Your task to perform on an android device: allow cookies in the chrome app Image 0: 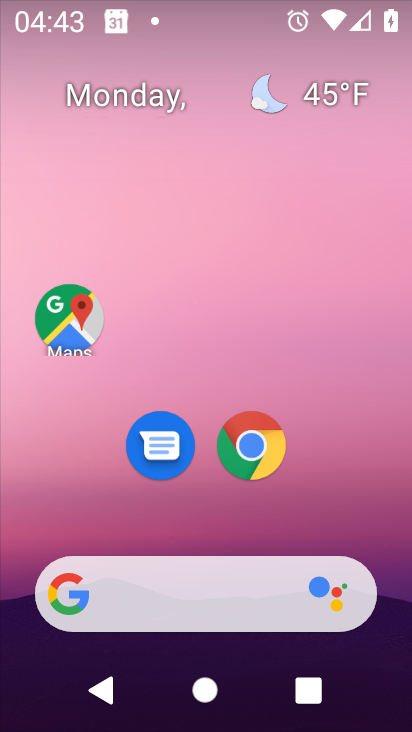
Step 0: click (261, 442)
Your task to perform on an android device: allow cookies in the chrome app Image 1: 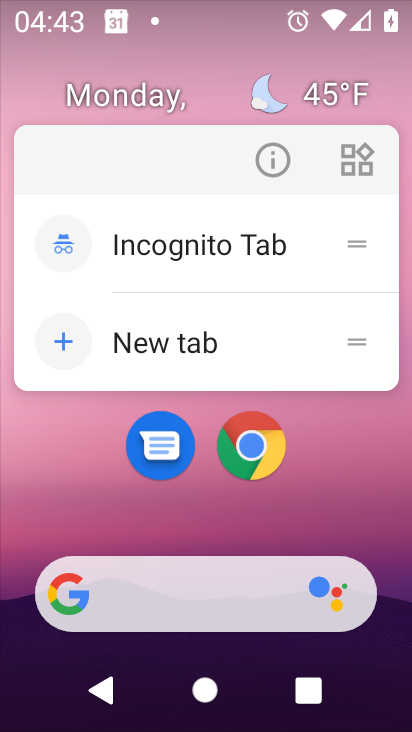
Step 1: click (261, 442)
Your task to perform on an android device: allow cookies in the chrome app Image 2: 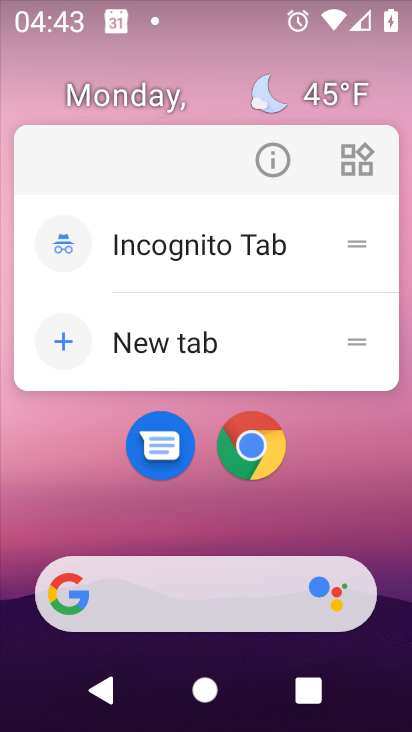
Step 2: click (238, 466)
Your task to perform on an android device: allow cookies in the chrome app Image 3: 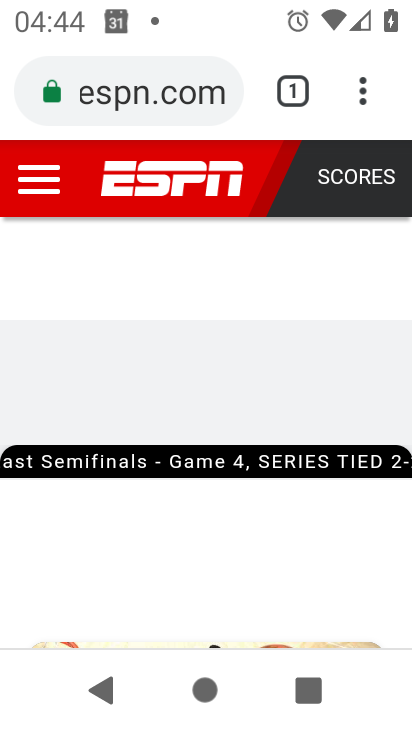
Step 3: click (361, 104)
Your task to perform on an android device: allow cookies in the chrome app Image 4: 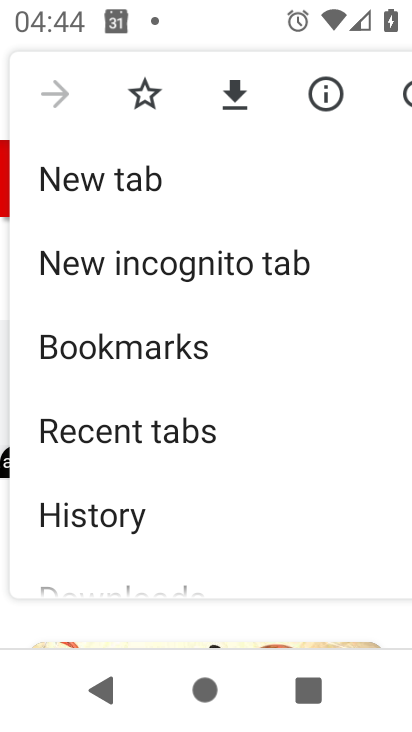
Step 4: drag from (292, 464) to (302, 24)
Your task to perform on an android device: allow cookies in the chrome app Image 5: 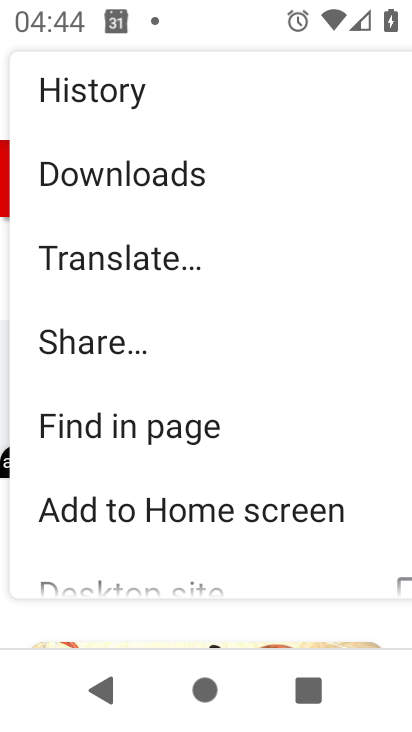
Step 5: drag from (252, 461) to (278, 50)
Your task to perform on an android device: allow cookies in the chrome app Image 6: 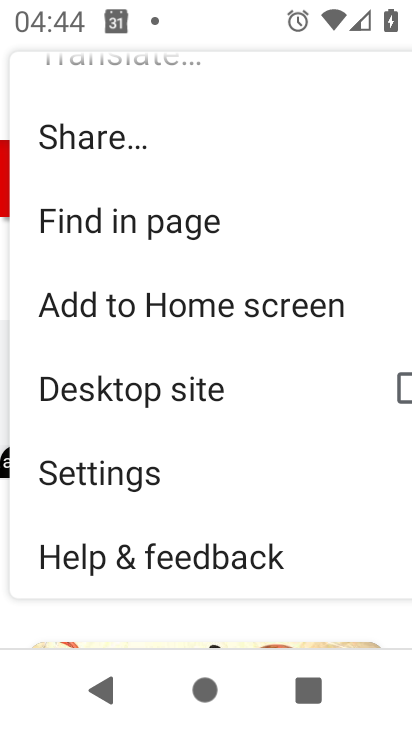
Step 6: click (154, 454)
Your task to perform on an android device: allow cookies in the chrome app Image 7: 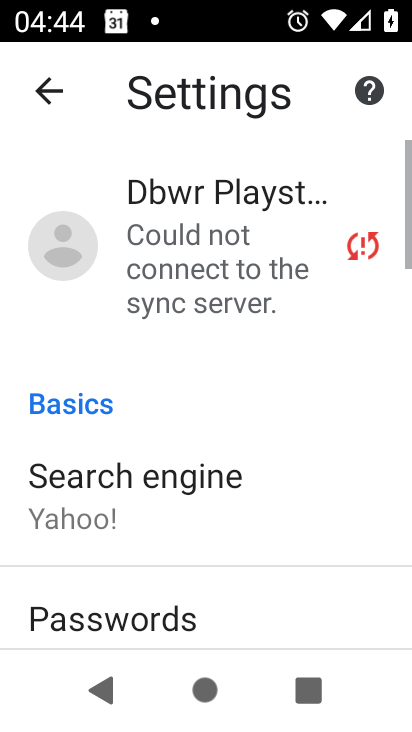
Step 7: drag from (161, 541) to (166, 234)
Your task to perform on an android device: allow cookies in the chrome app Image 8: 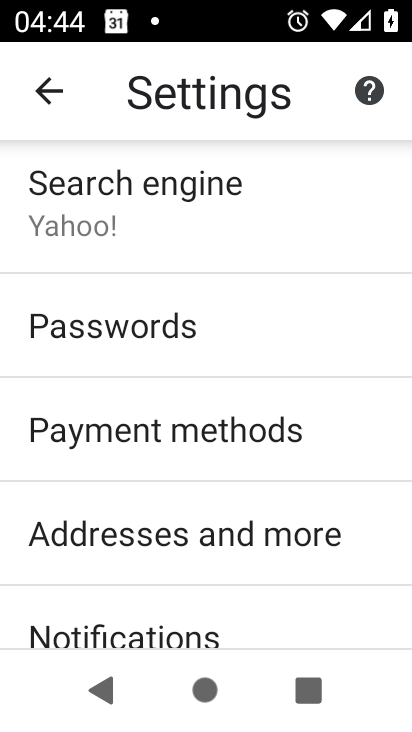
Step 8: drag from (179, 613) to (199, 205)
Your task to perform on an android device: allow cookies in the chrome app Image 9: 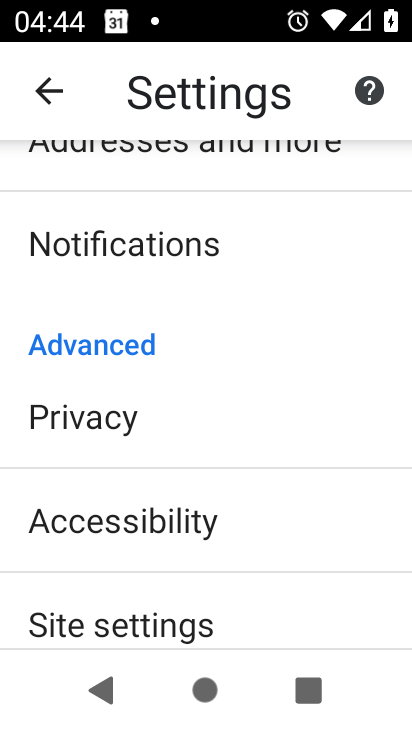
Step 9: click (142, 621)
Your task to perform on an android device: allow cookies in the chrome app Image 10: 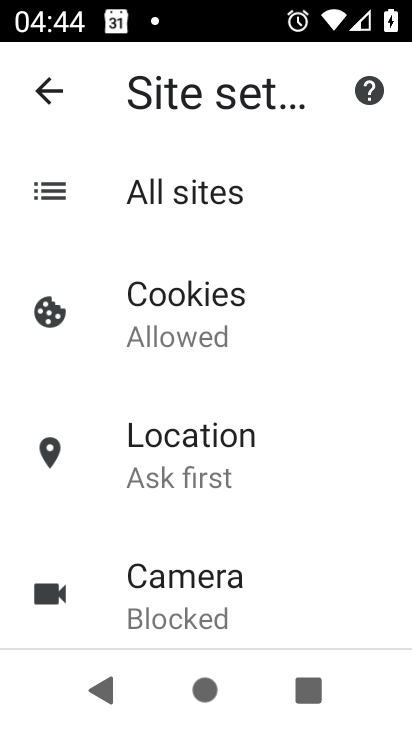
Step 10: click (200, 315)
Your task to perform on an android device: allow cookies in the chrome app Image 11: 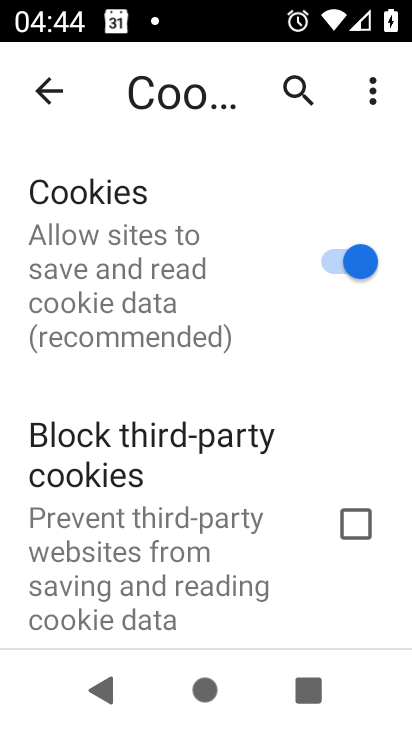
Step 11: task complete